Your task to perform on an android device: see sites visited before in the chrome app Image 0: 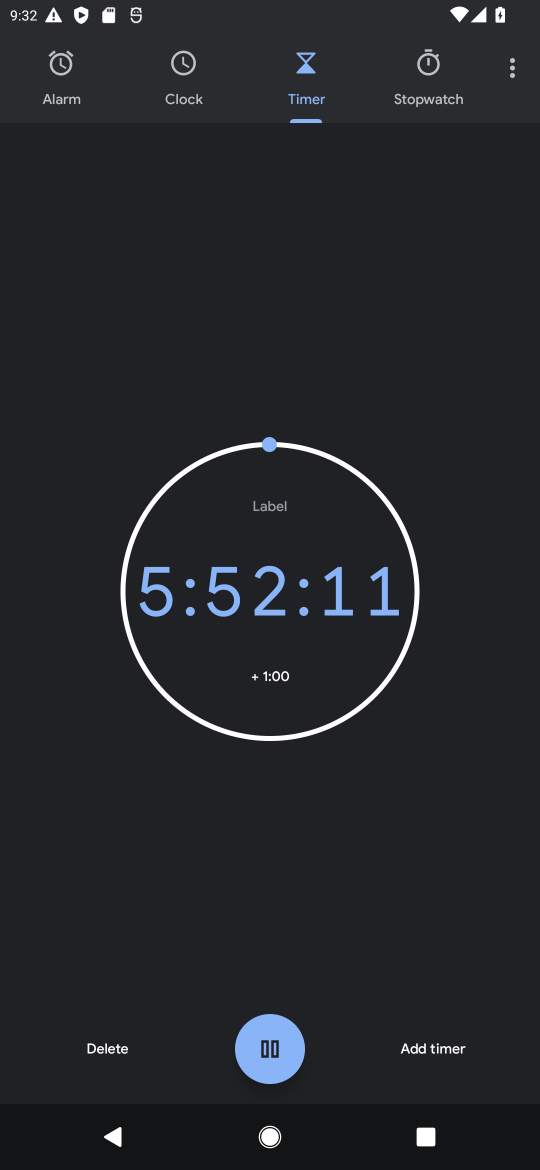
Step 0: press home button
Your task to perform on an android device: see sites visited before in the chrome app Image 1: 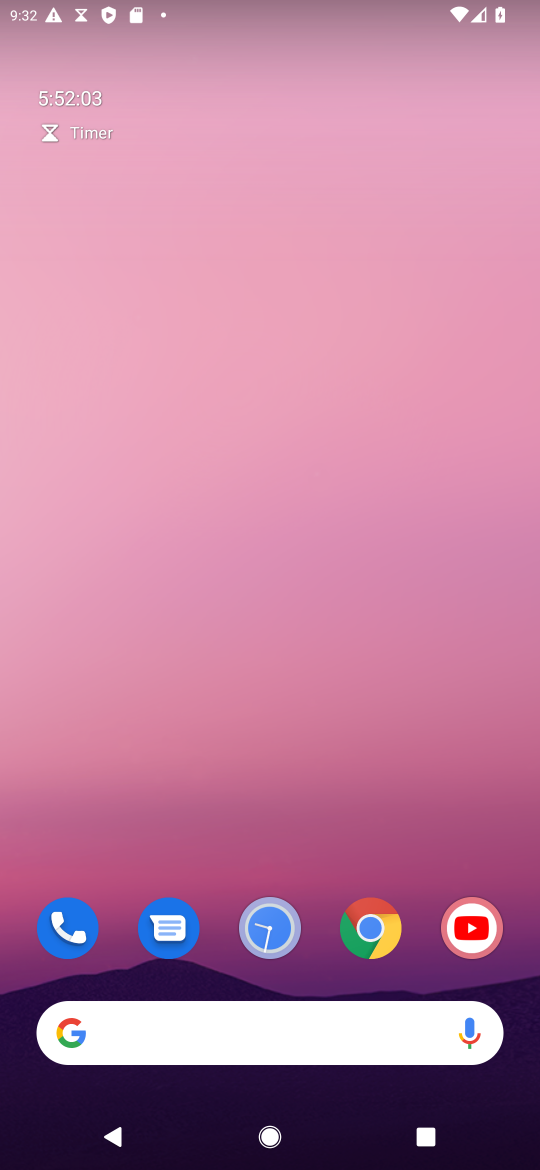
Step 1: click (387, 924)
Your task to perform on an android device: see sites visited before in the chrome app Image 2: 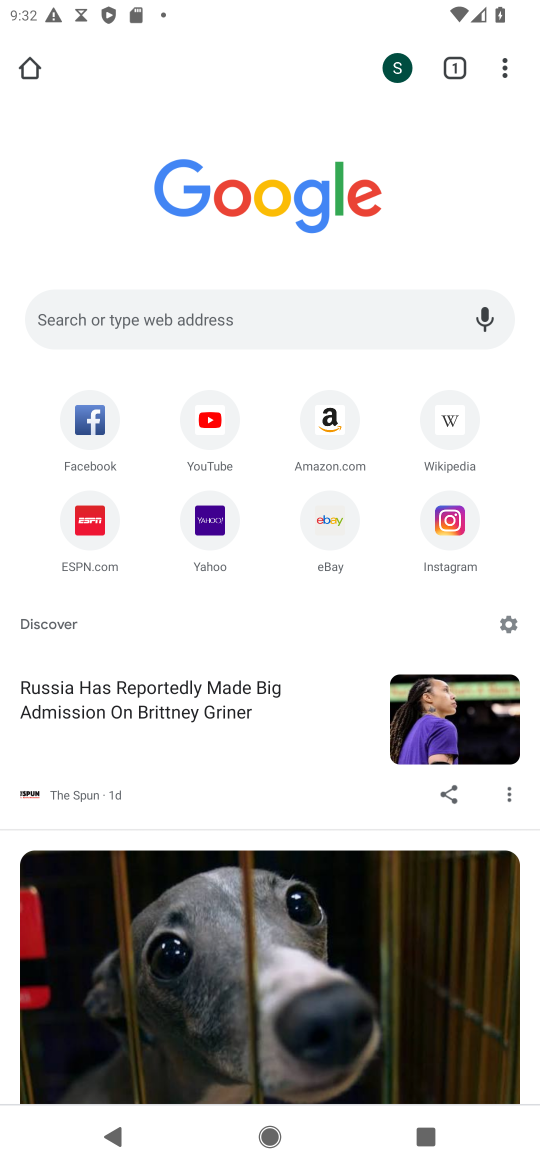
Step 2: task complete